Your task to perform on an android device: Open accessibility settings Image 0: 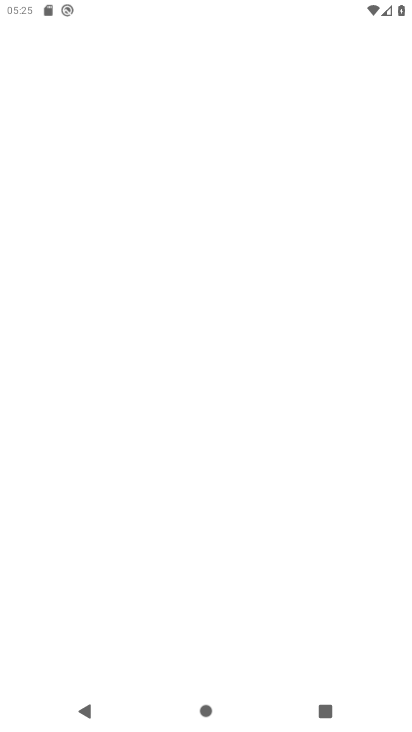
Step 0: drag from (225, 530) to (240, 38)
Your task to perform on an android device: Open accessibility settings Image 1: 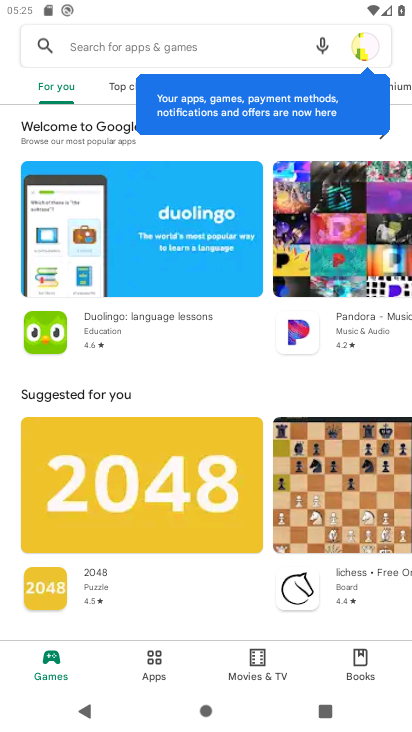
Step 1: press home button
Your task to perform on an android device: Open accessibility settings Image 2: 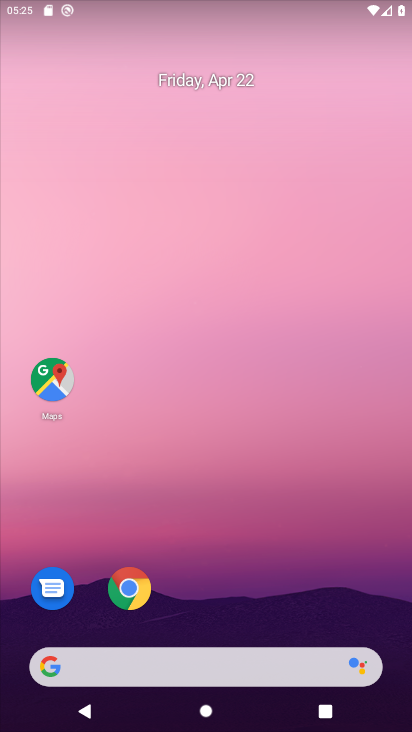
Step 2: drag from (309, 594) to (379, 0)
Your task to perform on an android device: Open accessibility settings Image 3: 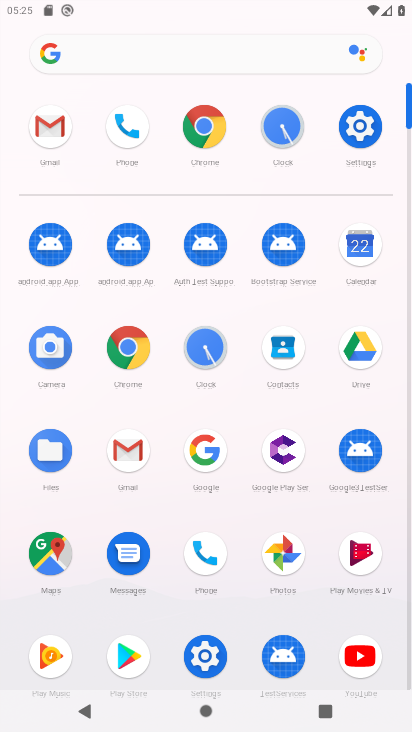
Step 3: click (359, 135)
Your task to perform on an android device: Open accessibility settings Image 4: 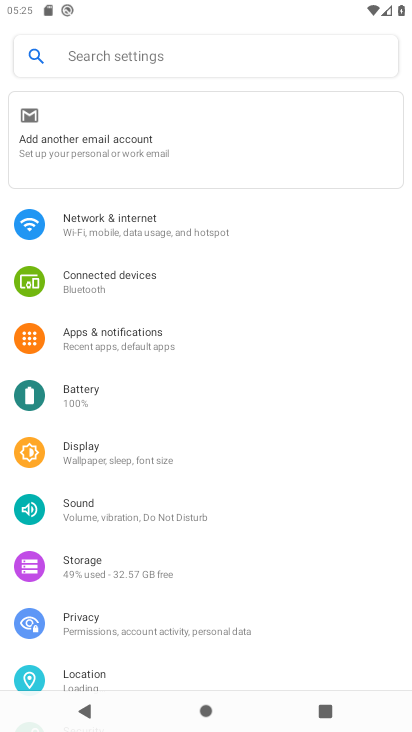
Step 4: drag from (177, 537) to (197, 105)
Your task to perform on an android device: Open accessibility settings Image 5: 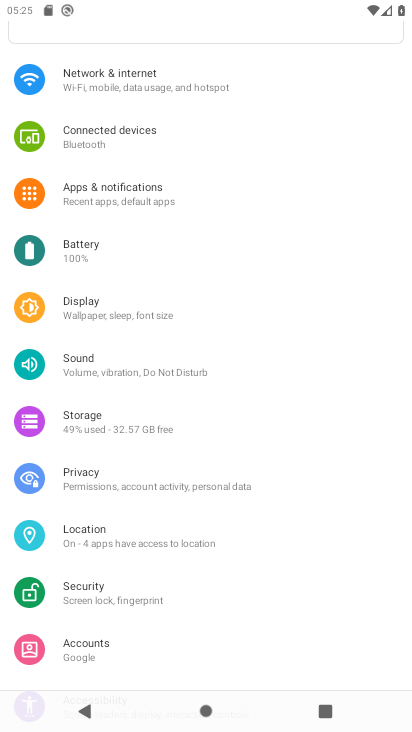
Step 5: drag from (153, 651) to (122, 117)
Your task to perform on an android device: Open accessibility settings Image 6: 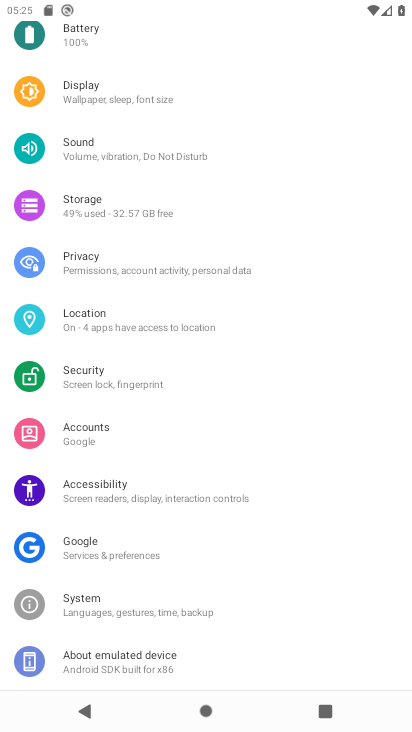
Step 6: click (124, 489)
Your task to perform on an android device: Open accessibility settings Image 7: 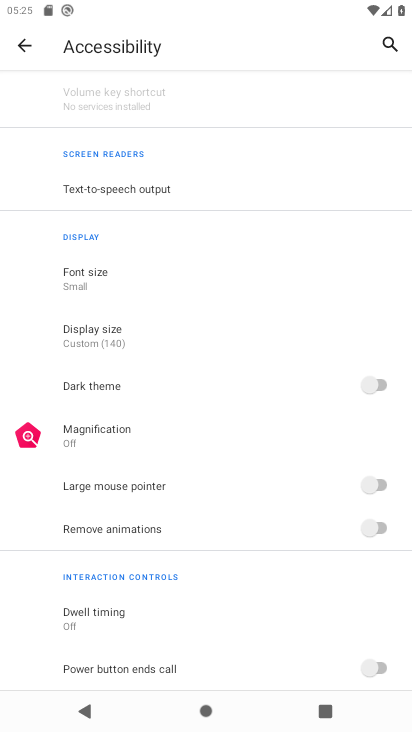
Step 7: task complete